Your task to perform on an android device: Set the phone to "Do not disturb". Image 0: 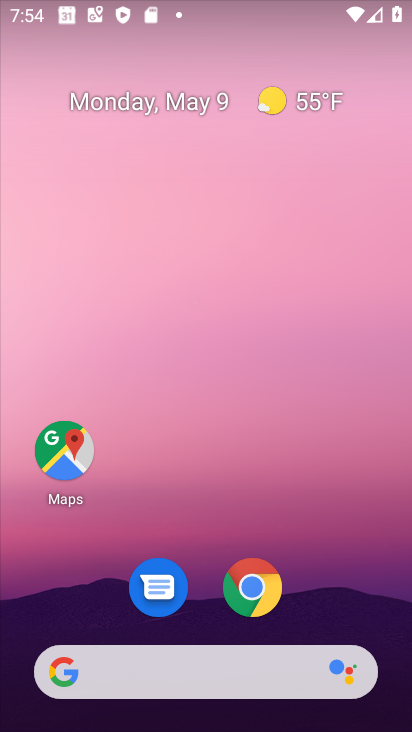
Step 0: drag from (177, 639) to (160, 0)
Your task to perform on an android device: Set the phone to "Do not disturb". Image 1: 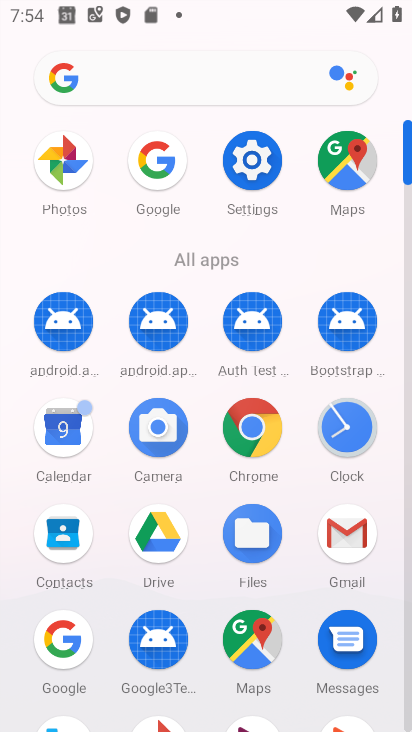
Step 1: drag from (187, 4) to (152, 714)
Your task to perform on an android device: Set the phone to "Do not disturb". Image 2: 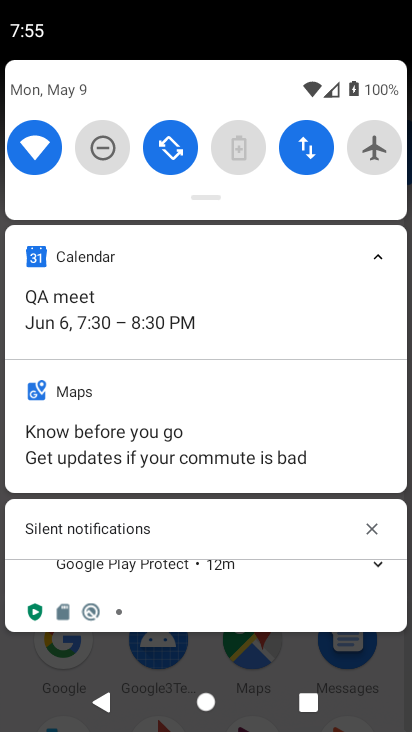
Step 2: click (113, 161)
Your task to perform on an android device: Set the phone to "Do not disturb". Image 3: 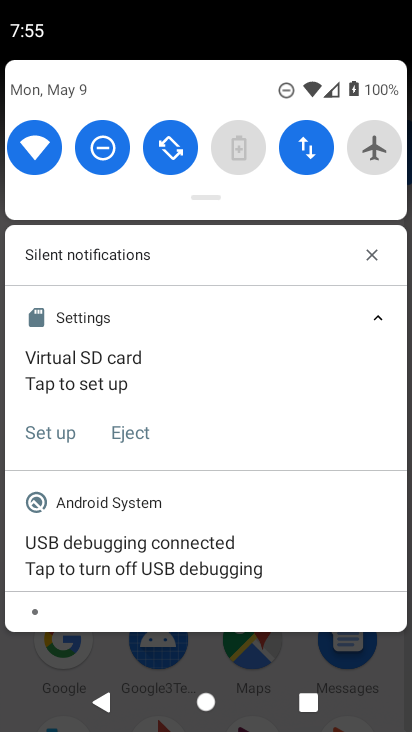
Step 3: task complete